Your task to perform on an android device: open a bookmark in the chrome app Image 0: 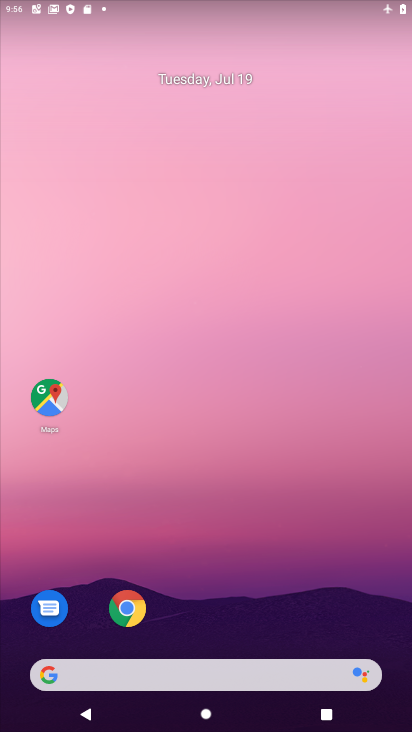
Step 0: drag from (269, 620) to (144, 123)
Your task to perform on an android device: open a bookmark in the chrome app Image 1: 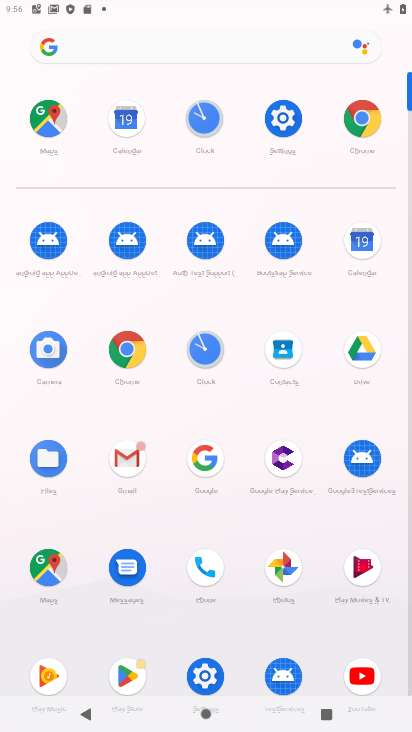
Step 1: click (360, 108)
Your task to perform on an android device: open a bookmark in the chrome app Image 2: 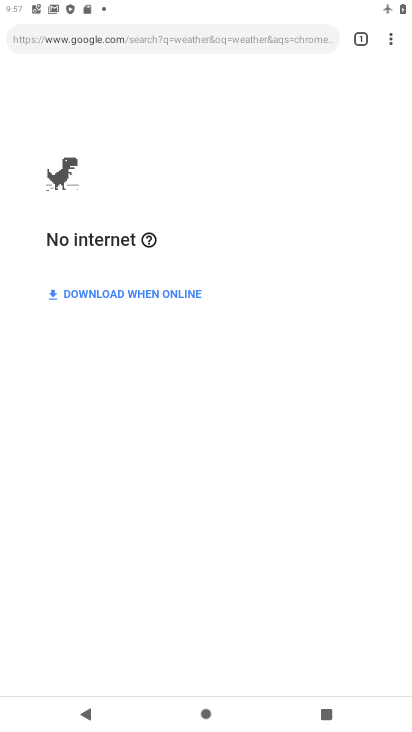
Step 2: drag from (385, 35) to (261, 148)
Your task to perform on an android device: open a bookmark in the chrome app Image 3: 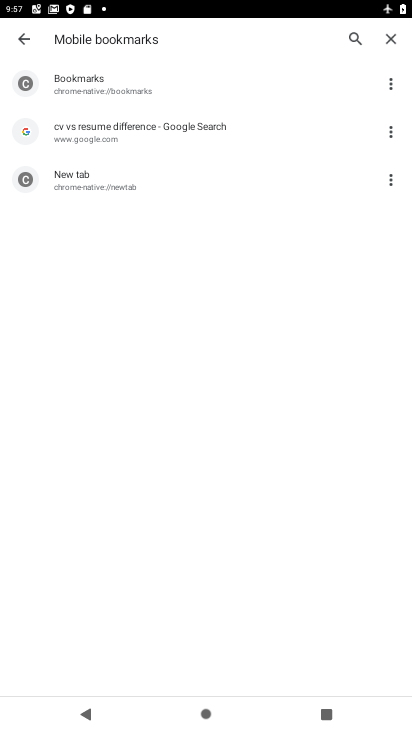
Step 3: click (103, 125)
Your task to perform on an android device: open a bookmark in the chrome app Image 4: 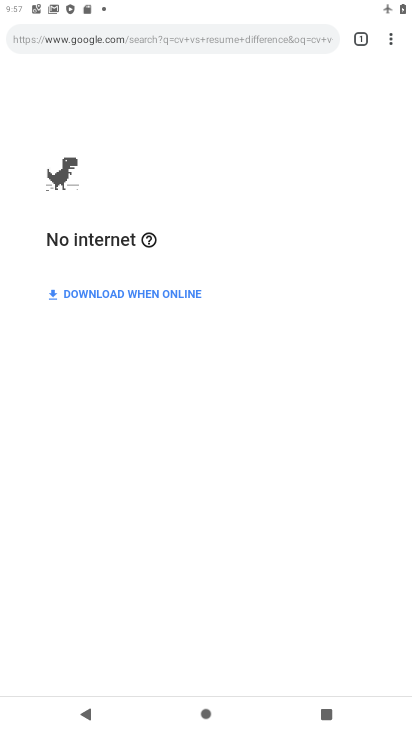
Step 4: task complete